Your task to perform on an android device: Open Chrome and go to settings Image 0: 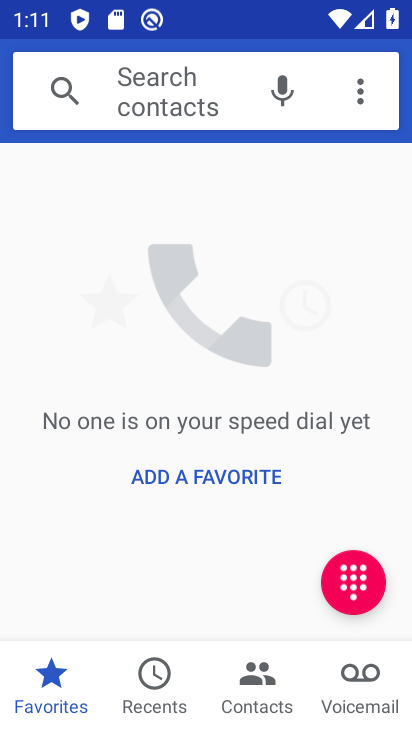
Step 0: press home button
Your task to perform on an android device: Open Chrome and go to settings Image 1: 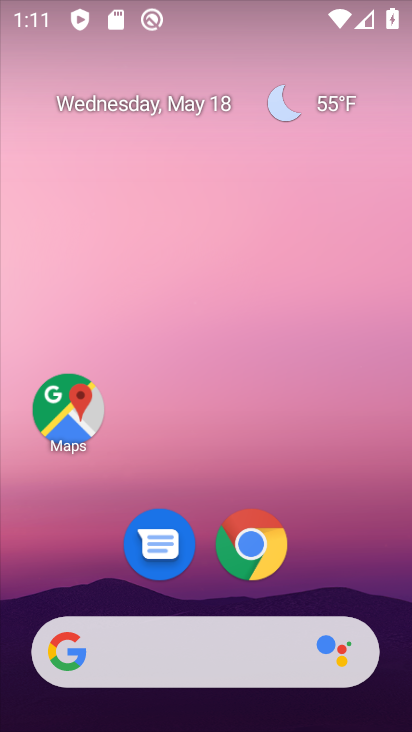
Step 1: click (254, 545)
Your task to perform on an android device: Open Chrome and go to settings Image 2: 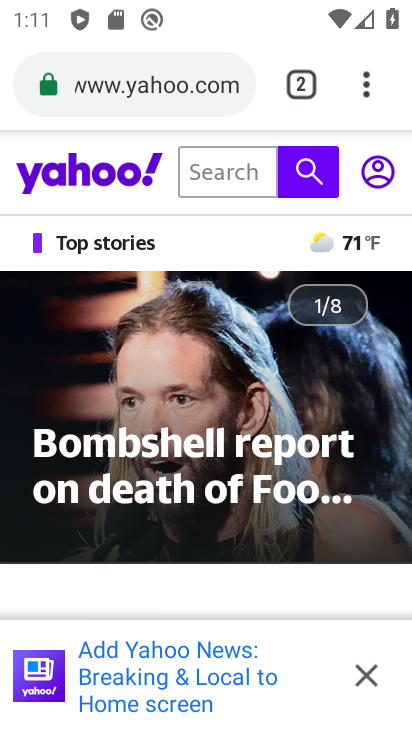
Step 2: click (370, 83)
Your task to perform on an android device: Open Chrome and go to settings Image 3: 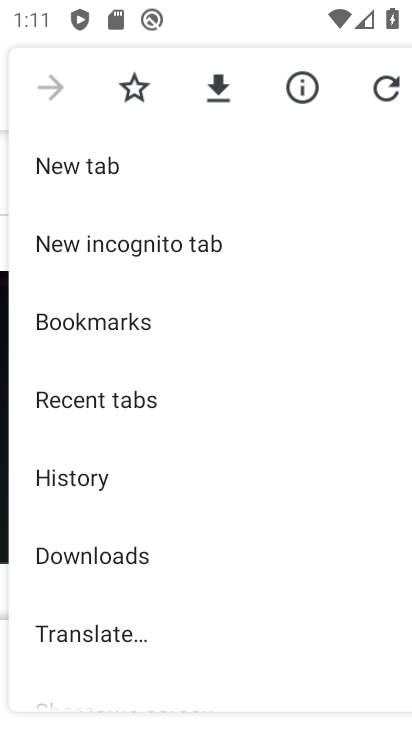
Step 3: drag from (167, 629) to (163, 305)
Your task to perform on an android device: Open Chrome and go to settings Image 4: 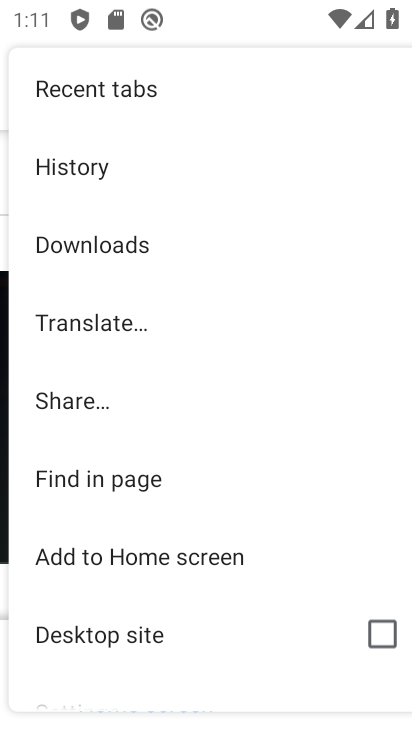
Step 4: drag from (186, 593) to (177, 227)
Your task to perform on an android device: Open Chrome and go to settings Image 5: 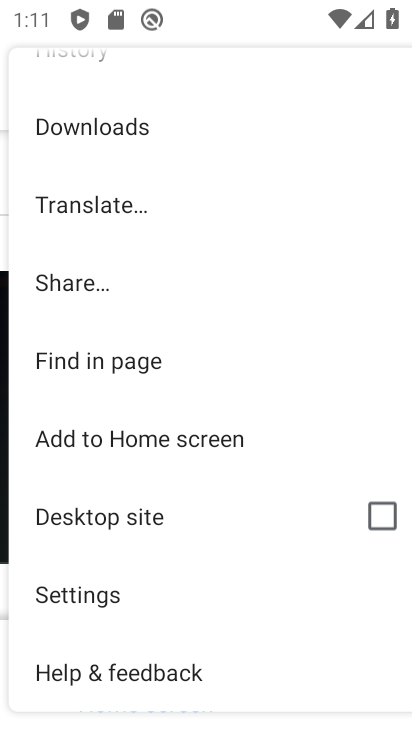
Step 5: click (80, 603)
Your task to perform on an android device: Open Chrome and go to settings Image 6: 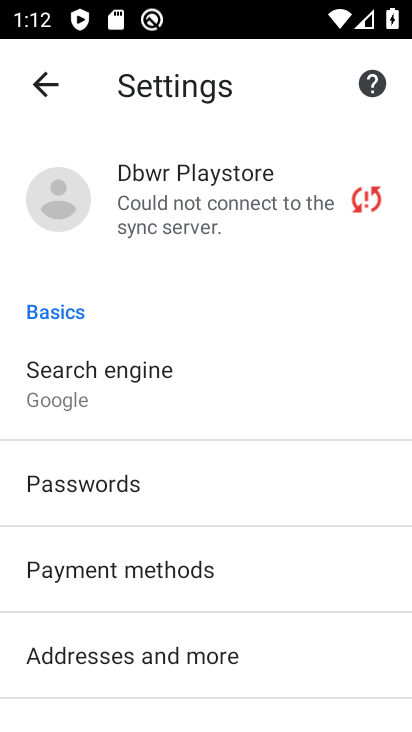
Step 6: task complete